Your task to perform on an android device: turn notification dots off Image 0: 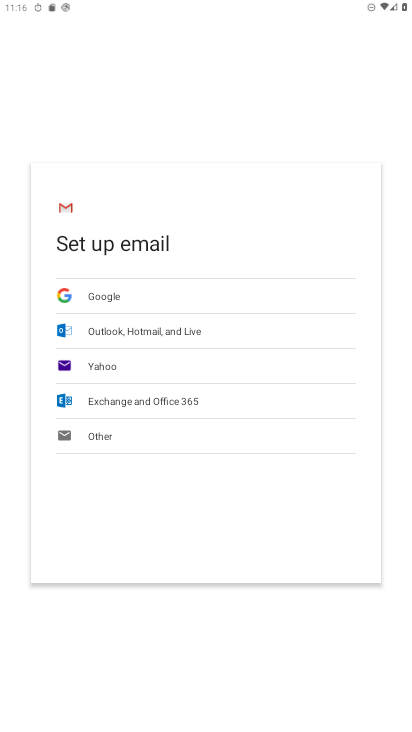
Step 0: press home button
Your task to perform on an android device: turn notification dots off Image 1: 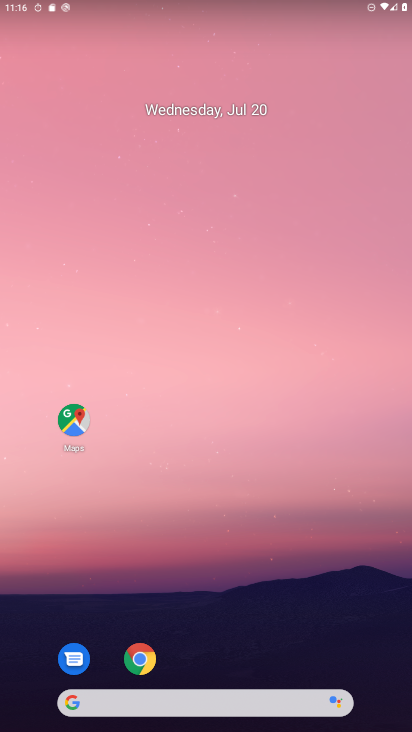
Step 1: drag from (284, 607) to (243, 53)
Your task to perform on an android device: turn notification dots off Image 2: 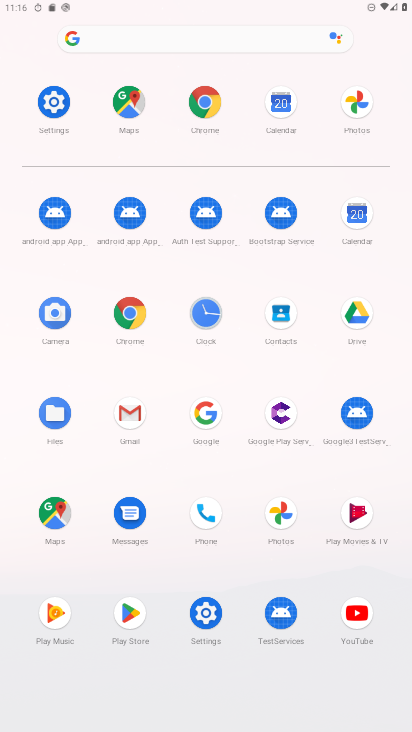
Step 2: click (48, 100)
Your task to perform on an android device: turn notification dots off Image 3: 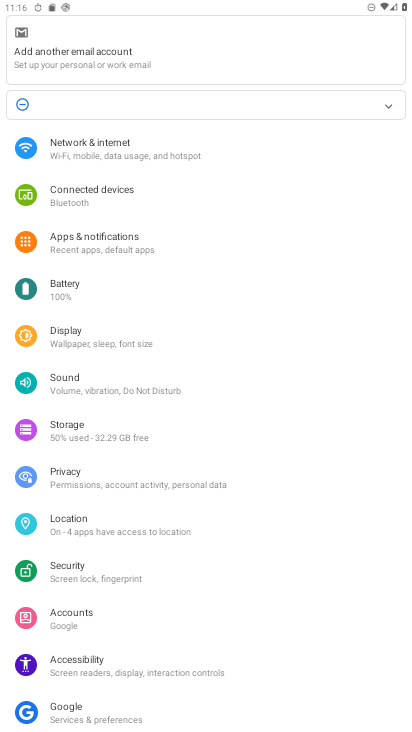
Step 3: click (120, 242)
Your task to perform on an android device: turn notification dots off Image 4: 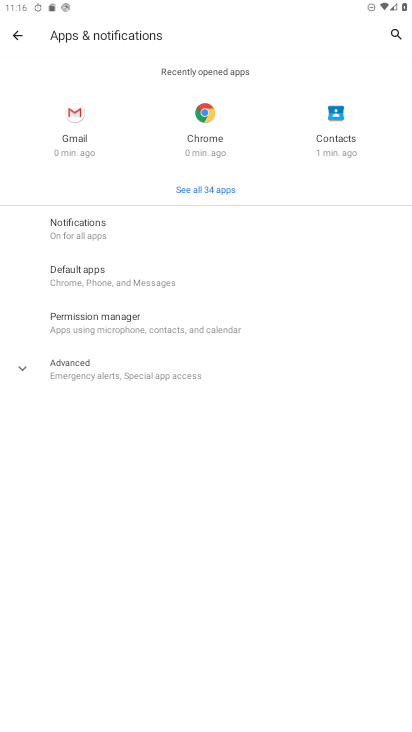
Step 4: click (104, 225)
Your task to perform on an android device: turn notification dots off Image 5: 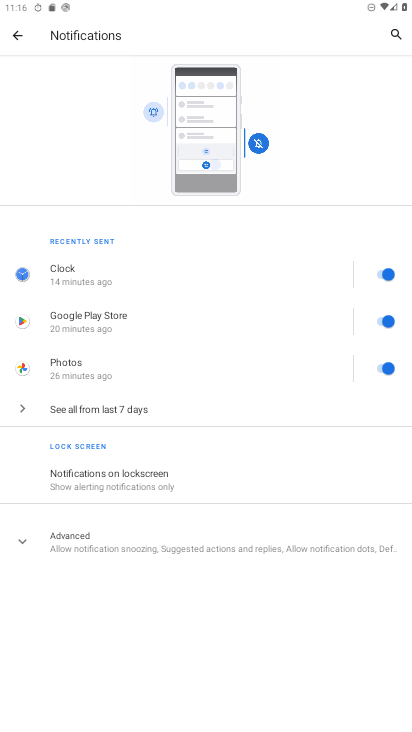
Step 5: click (156, 532)
Your task to perform on an android device: turn notification dots off Image 6: 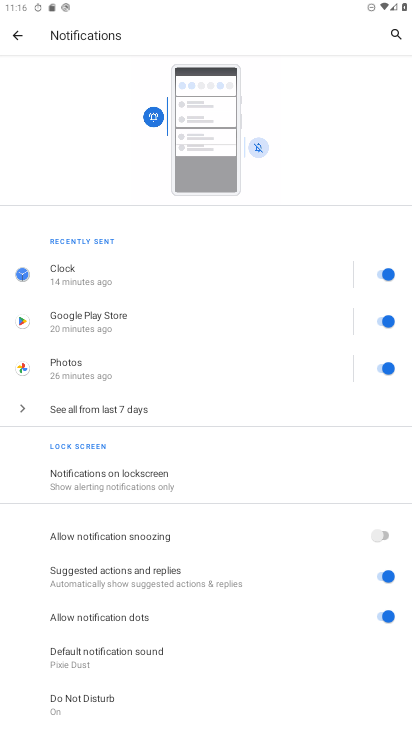
Step 6: drag from (259, 668) to (224, 244)
Your task to perform on an android device: turn notification dots off Image 7: 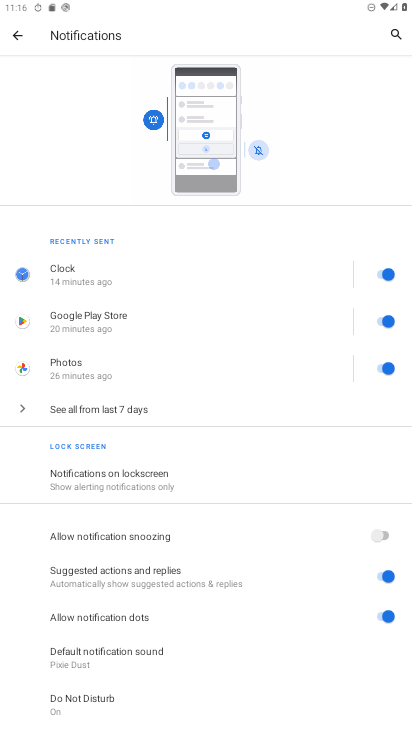
Step 7: click (383, 612)
Your task to perform on an android device: turn notification dots off Image 8: 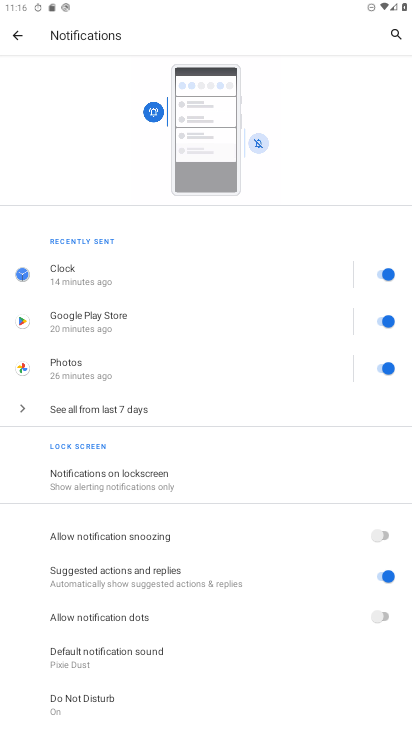
Step 8: task complete